Your task to perform on an android device: toggle sleep mode Image 0: 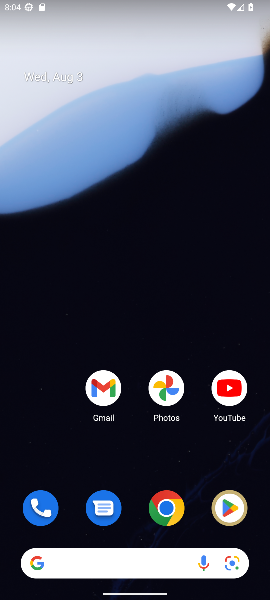
Step 0: drag from (176, 534) to (238, 367)
Your task to perform on an android device: toggle sleep mode Image 1: 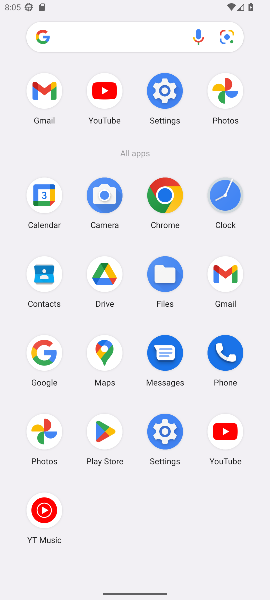
Step 1: click (163, 433)
Your task to perform on an android device: toggle sleep mode Image 2: 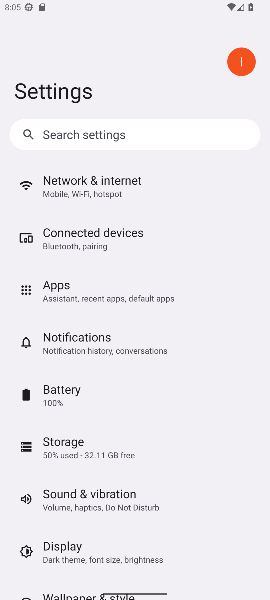
Step 2: task complete